Your task to perform on an android device: What's on my calendar tomorrow? Image 0: 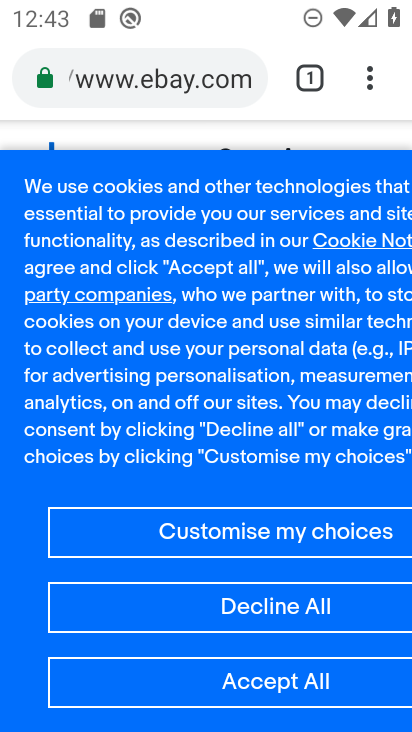
Step 0: press home button
Your task to perform on an android device: What's on my calendar tomorrow? Image 1: 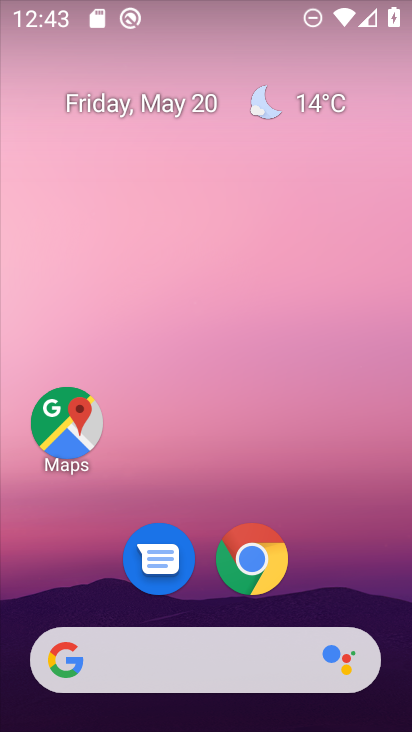
Step 1: drag from (379, 619) to (375, 187)
Your task to perform on an android device: What's on my calendar tomorrow? Image 2: 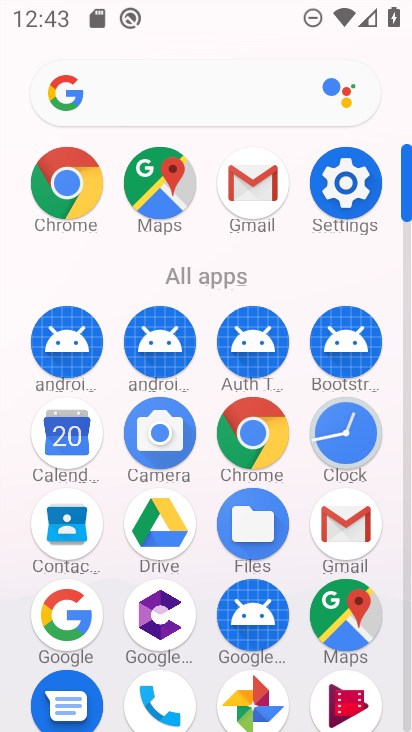
Step 2: click (79, 473)
Your task to perform on an android device: What's on my calendar tomorrow? Image 3: 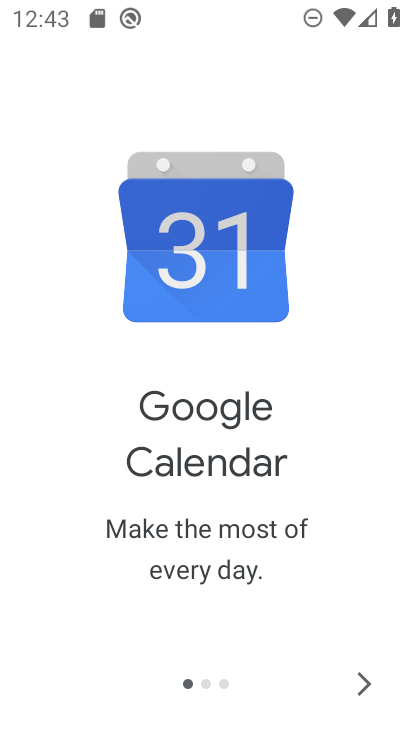
Step 3: click (147, 332)
Your task to perform on an android device: What's on my calendar tomorrow? Image 4: 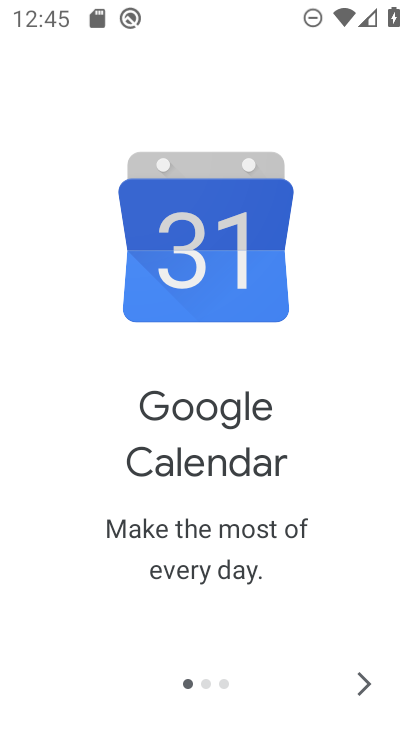
Step 4: click (368, 692)
Your task to perform on an android device: What's on my calendar tomorrow? Image 5: 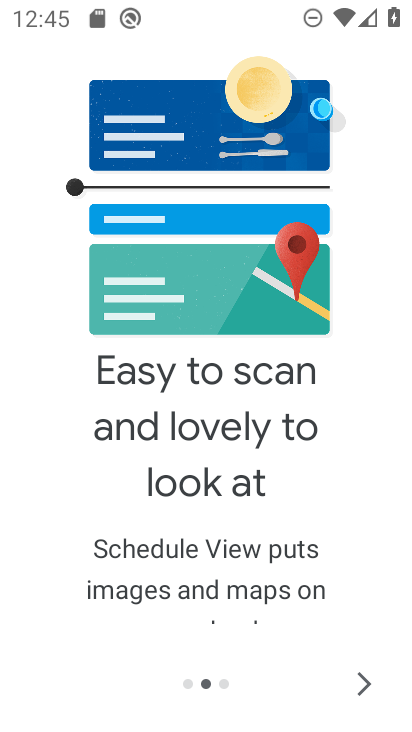
Step 5: click (366, 665)
Your task to perform on an android device: What's on my calendar tomorrow? Image 6: 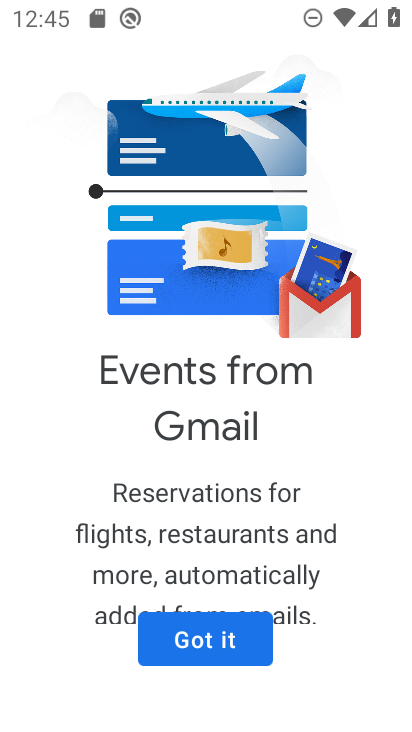
Step 6: click (259, 662)
Your task to perform on an android device: What's on my calendar tomorrow? Image 7: 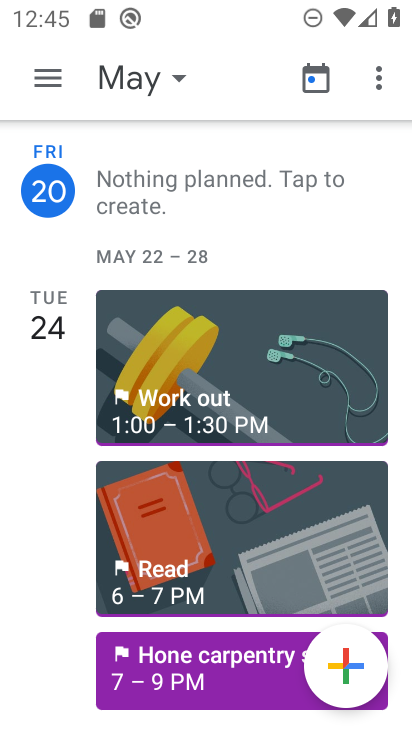
Step 7: task complete